Your task to perform on an android device: change keyboard looks Image 0: 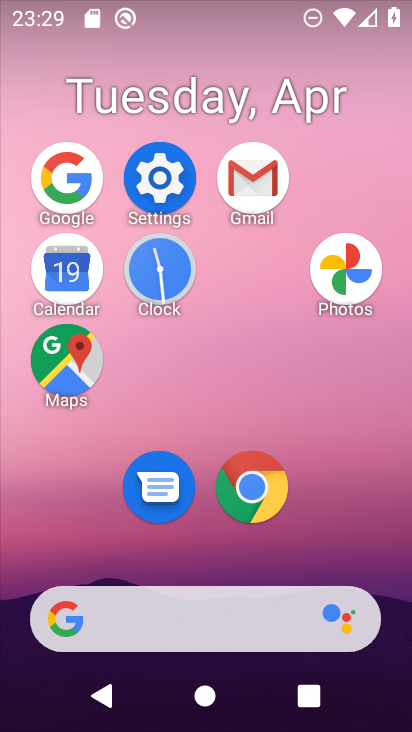
Step 0: click (157, 189)
Your task to perform on an android device: change keyboard looks Image 1: 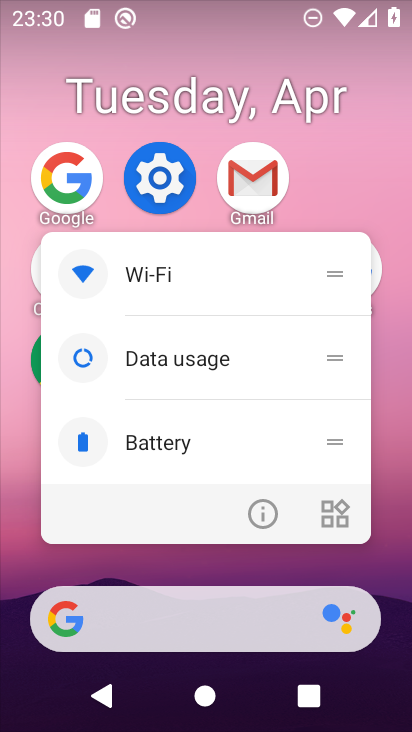
Step 1: click (157, 189)
Your task to perform on an android device: change keyboard looks Image 2: 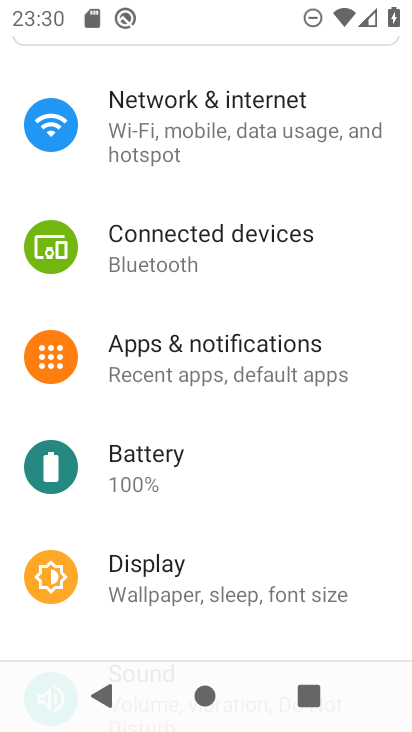
Step 2: drag from (246, 516) to (227, 110)
Your task to perform on an android device: change keyboard looks Image 3: 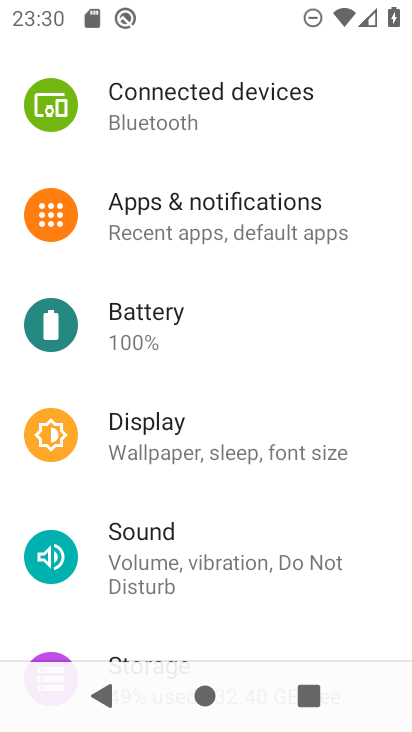
Step 3: drag from (270, 598) to (268, 88)
Your task to perform on an android device: change keyboard looks Image 4: 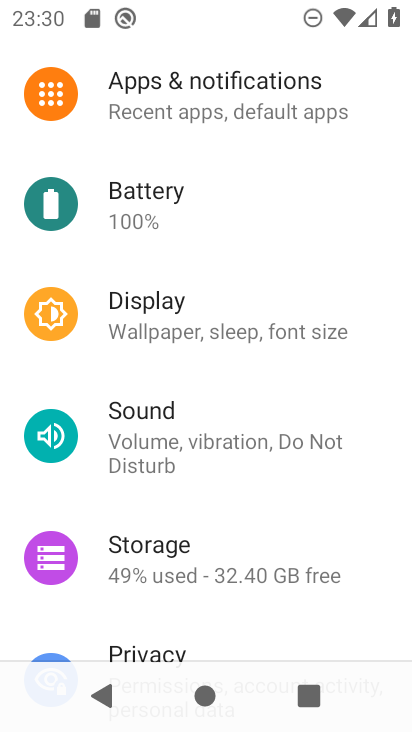
Step 4: drag from (300, 623) to (222, 126)
Your task to perform on an android device: change keyboard looks Image 5: 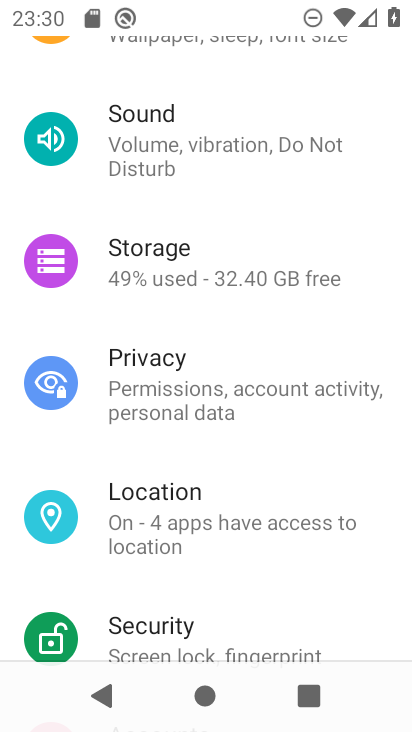
Step 5: drag from (301, 630) to (280, 52)
Your task to perform on an android device: change keyboard looks Image 6: 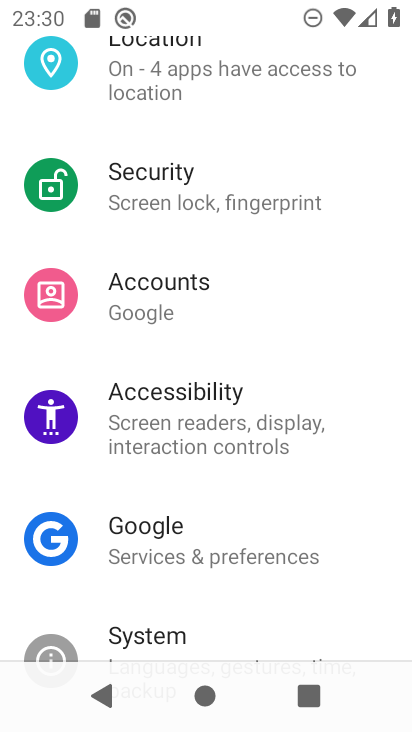
Step 6: drag from (247, 631) to (223, 152)
Your task to perform on an android device: change keyboard looks Image 7: 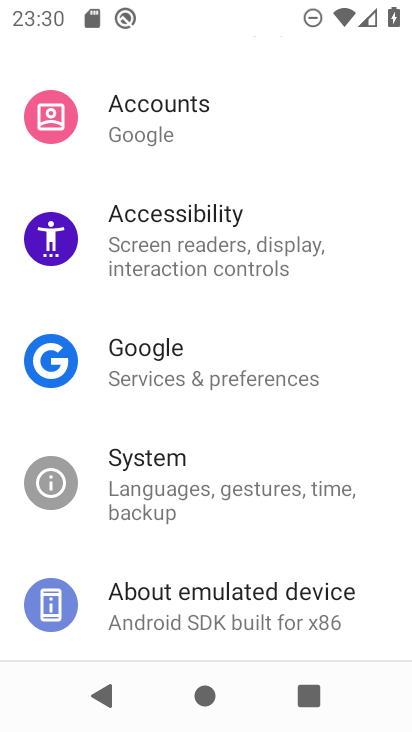
Step 7: drag from (276, 560) to (338, 78)
Your task to perform on an android device: change keyboard looks Image 8: 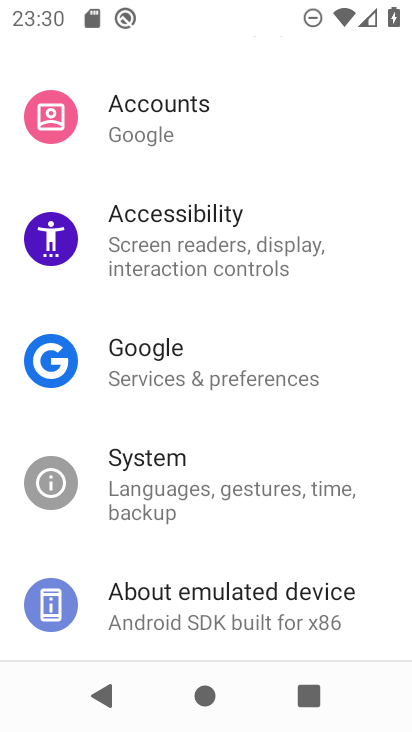
Step 8: click (221, 462)
Your task to perform on an android device: change keyboard looks Image 9: 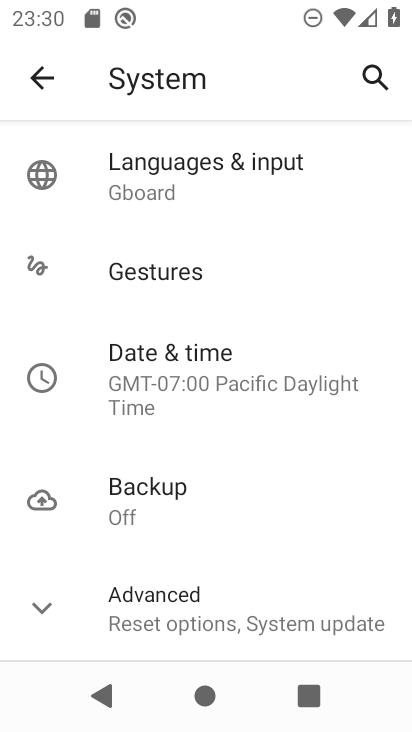
Step 9: click (299, 170)
Your task to perform on an android device: change keyboard looks Image 10: 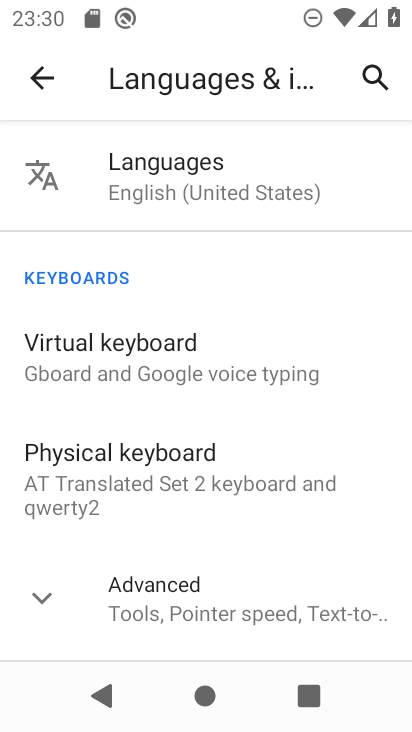
Step 10: click (196, 362)
Your task to perform on an android device: change keyboard looks Image 11: 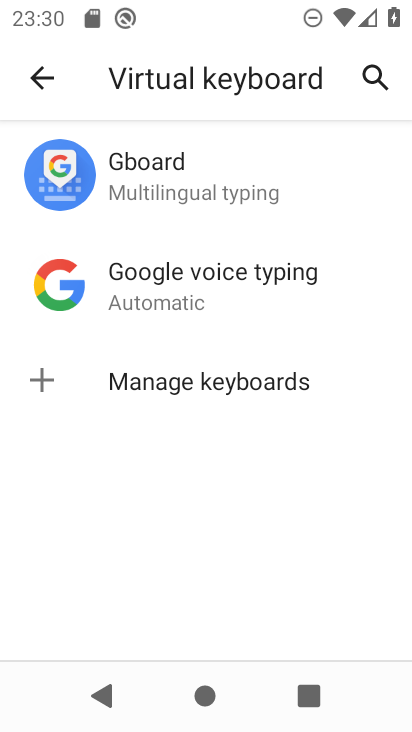
Step 11: click (230, 180)
Your task to perform on an android device: change keyboard looks Image 12: 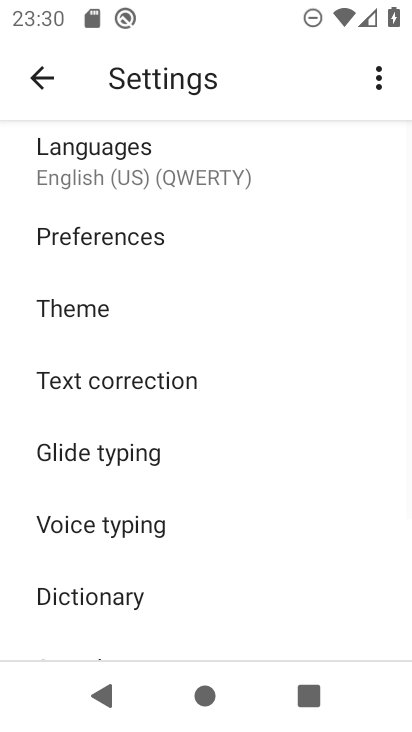
Step 12: click (106, 311)
Your task to perform on an android device: change keyboard looks Image 13: 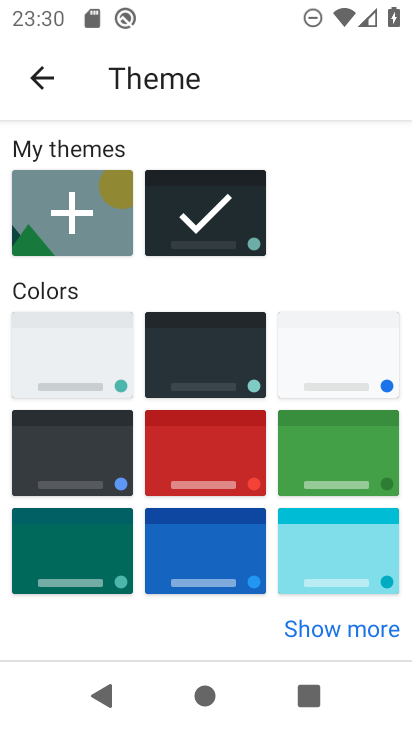
Step 13: click (117, 391)
Your task to perform on an android device: change keyboard looks Image 14: 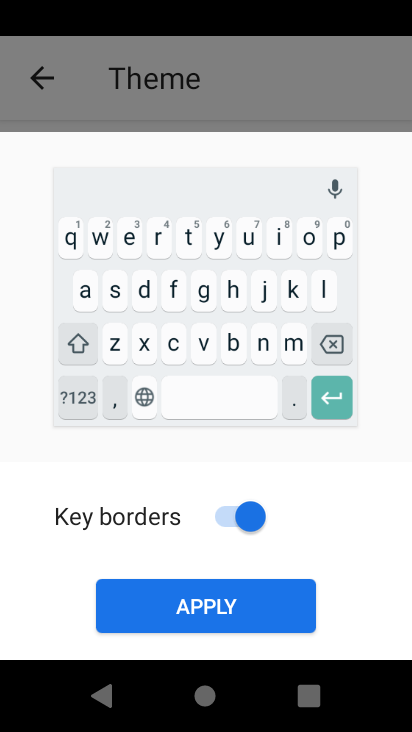
Step 14: click (243, 594)
Your task to perform on an android device: change keyboard looks Image 15: 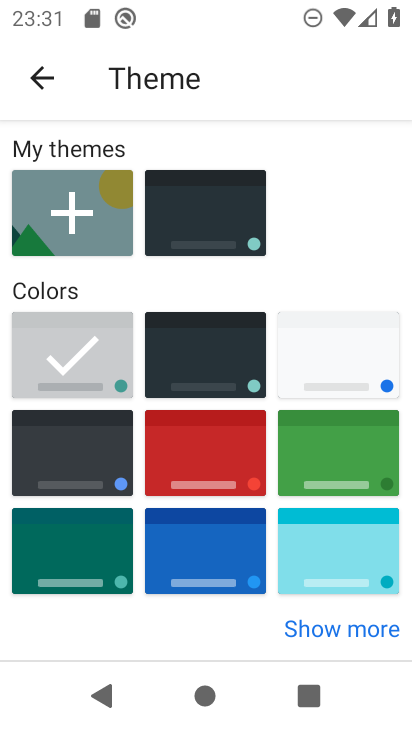
Step 15: task complete